Your task to perform on an android device: Open internet settings Image 0: 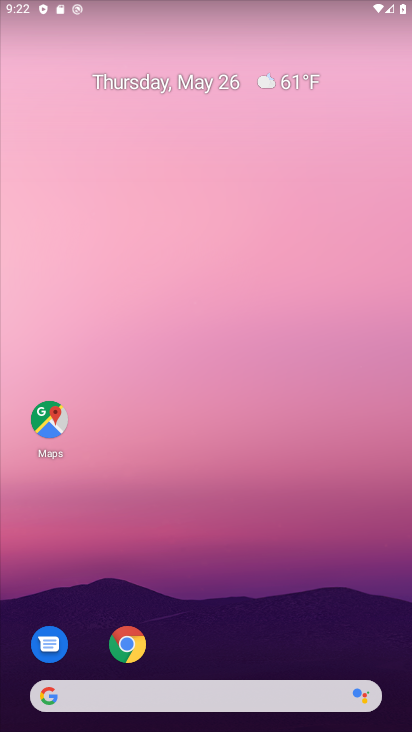
Step 0: drag from (283, 711) to (128, 66)
Your task to perform on an android device: Open internet settings Image 1: 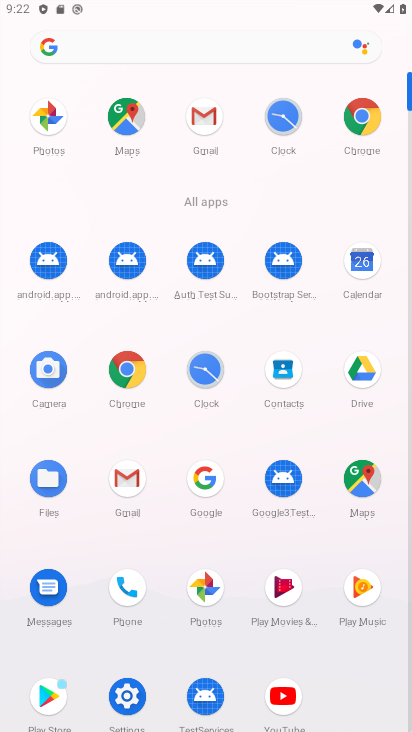
Step 1: click (121, 698)
Your task to perform on an android device: Open internet settings Image 2: 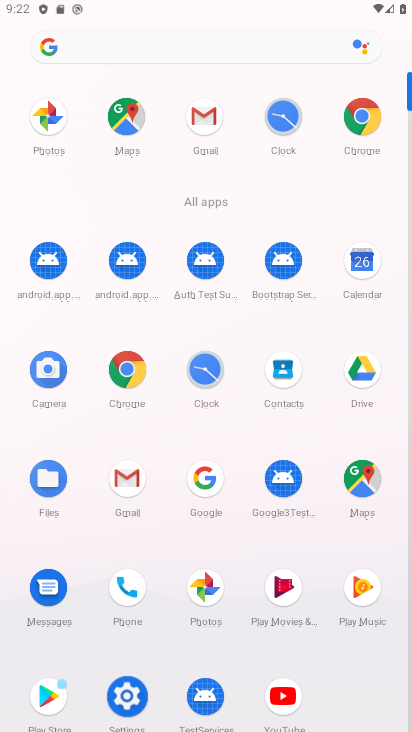
Step 2: click (132, 695)
Your task to perform on an android device: Open internet settings Image 3: 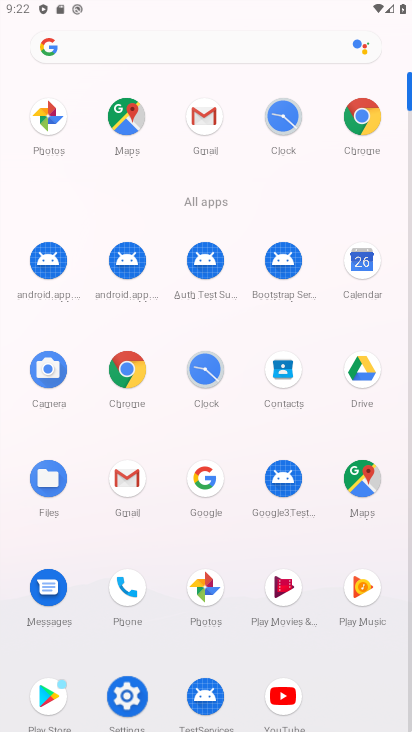
Step 3: click (133, 695)
Your task to perform on an android device: Open internet settings Image 4: 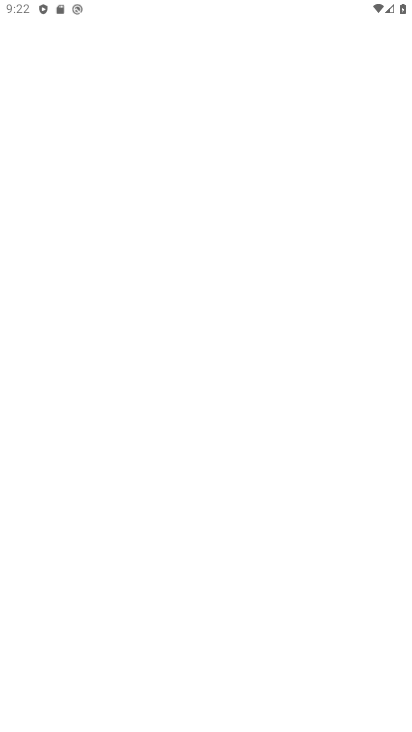
Step 4: click (127, 689)
Your task to perform on an android device: Open internet settings Image 5: 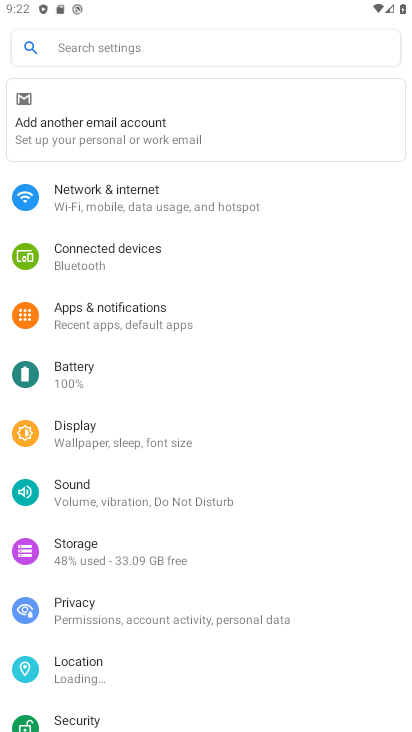
Step 5: click (153, 196)
Your task to perform on an android device: Open internet settings Image 6: 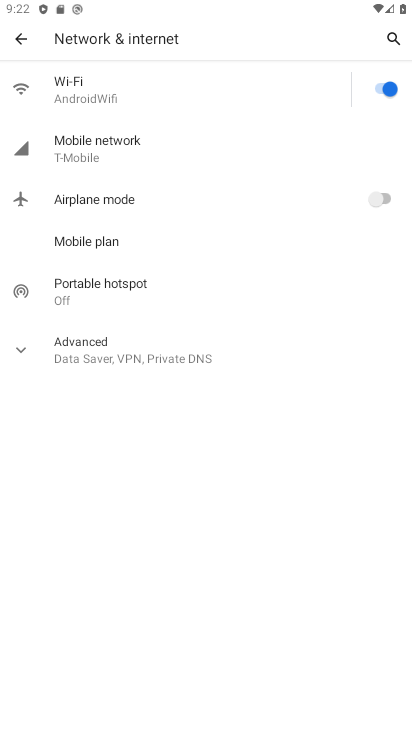
Step 6: task complete